Your task to perform on an android device: Open Wikipedia Image 0: 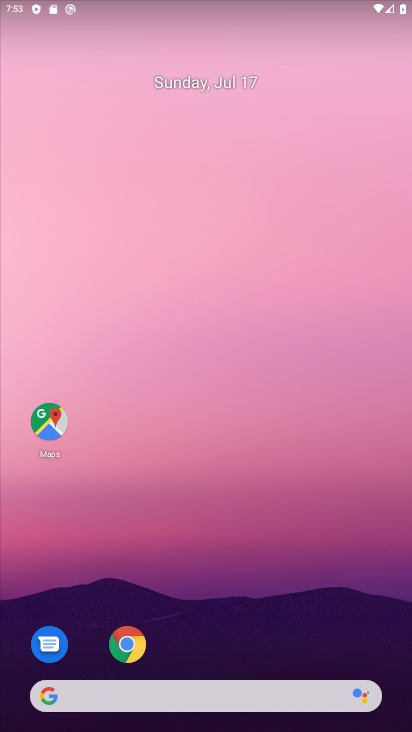
Step 0: click (126, 641)
Your task to perform on an android device: Open Wikipedia Image 1: 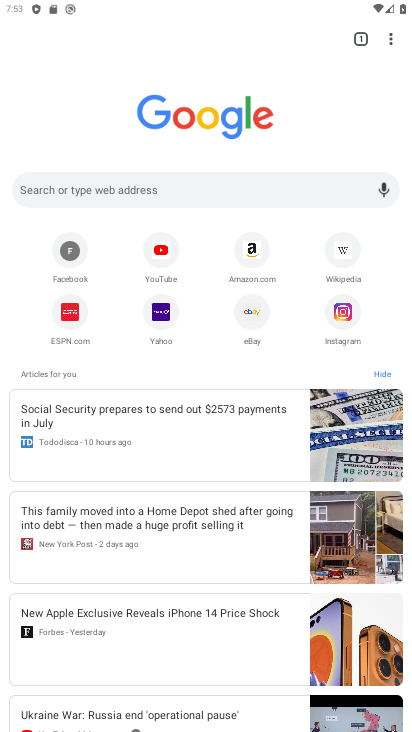
Step 1: click (346, 254)
Your task to perform on an android device: Open Wikipedia Image 2: 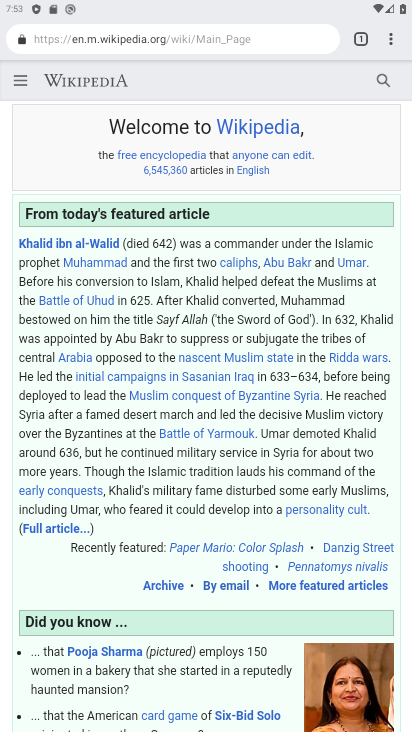
Step 2: task complete